Your task to perform on an android device: delete browsing data in the chrome app Image 0: 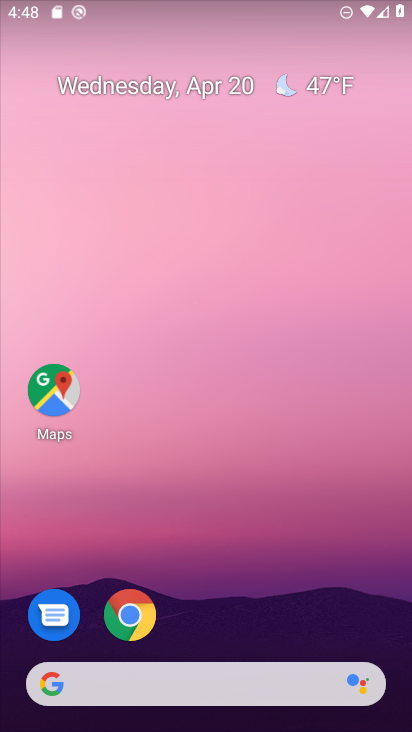
Step 0: click (135, 615)
Your task to perform on an android device: delete browsing data in the chrome app Image 1: 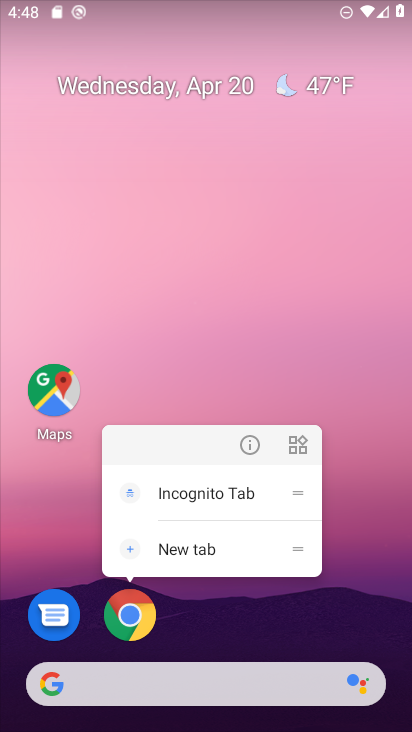
Step 1: click (135, 614)
Your task to perform on an android device: delete browsing data in the chrome app Image 2: 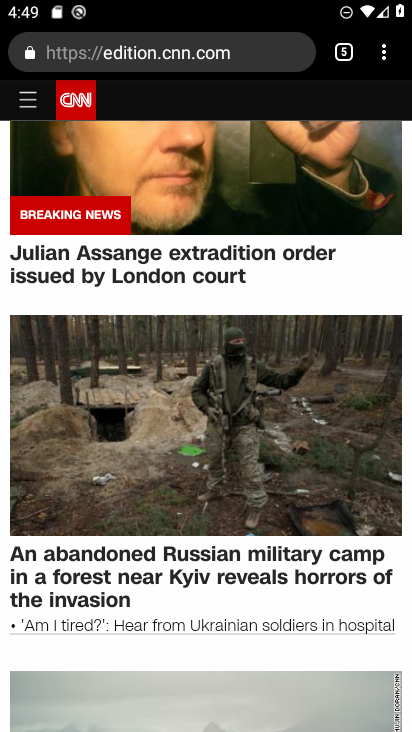
Step 2: click (384, 59)
Your task to perform on an android device: delete browsing data in the chrome app Image 3: 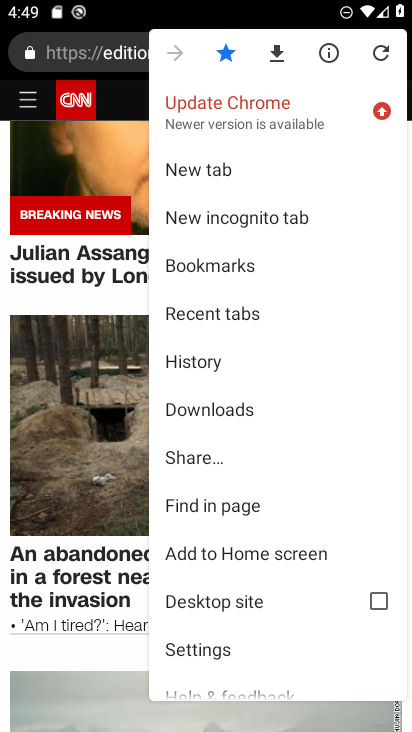
Step 3: click (203, 362)
Your task to perform on an android device: delete browsing data in the chrome app Image 4: 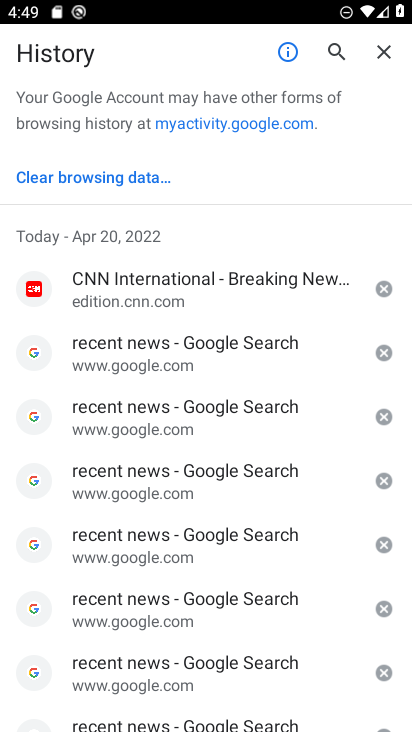
Step 4: click (143, 170)
Your task to perform on an android device: delete browsing data in the chrome app Image 5: 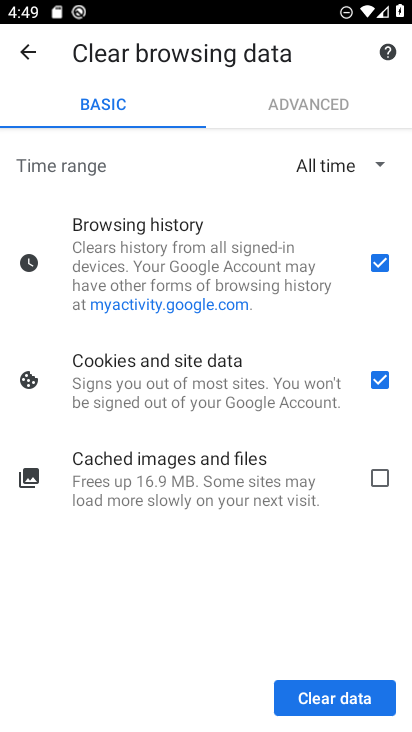
Step 5: click (345, 694)
Your task to perform on an android device: delete browsing data in the chrome app Image 6: 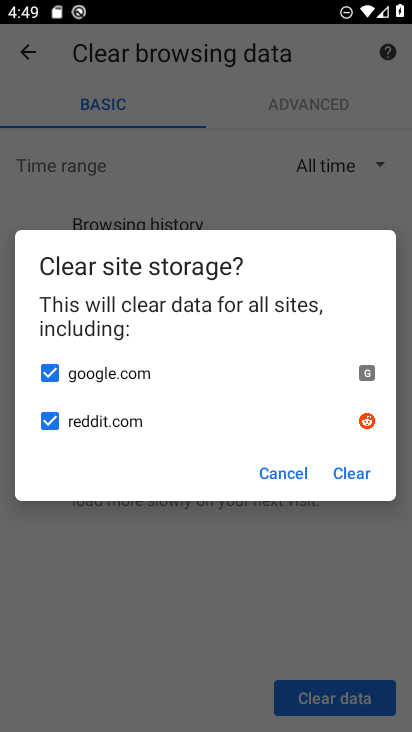
Step 6: click (356, 475)
Your task to perform on an android device: delete browsing data in the chrome app Image 7: 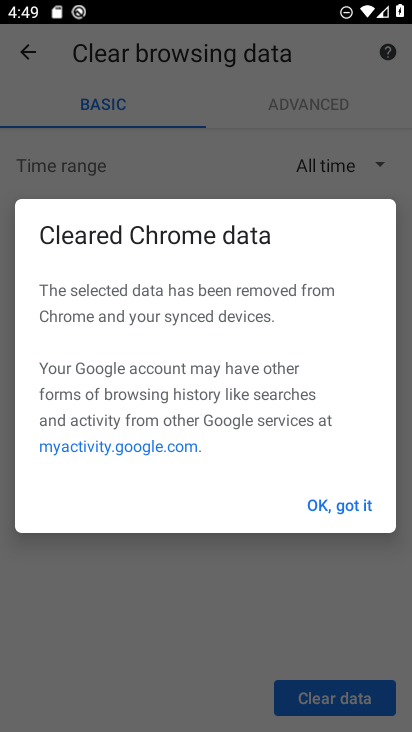
Step 7: click (348, 505)
Your task to perform on an android device: delete browsing data in the chrome app Image 8: 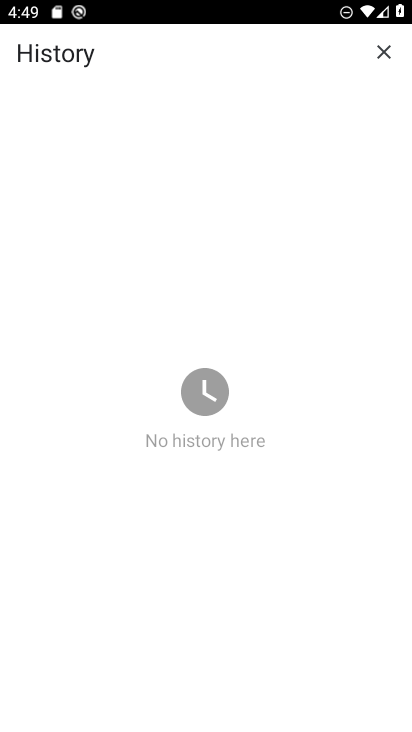
Step 8: task complete